Your task to perform on an android device: move an email to a new category in the gmail app Image 0: 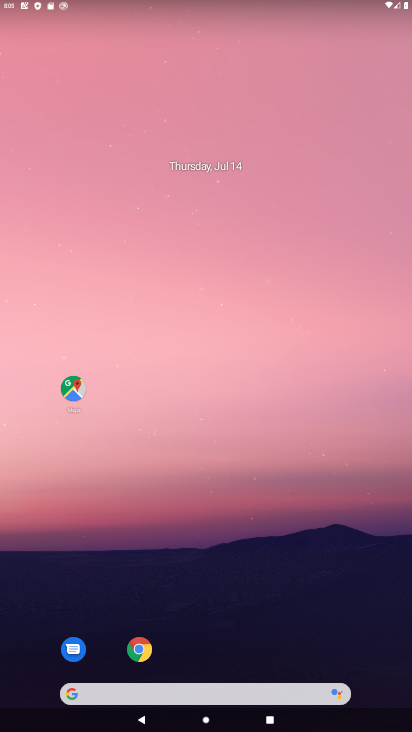
Step 0: drag from (218, 642) to (282, 277)
Your task to perform on an android device: move an email to a new category in the gmail app Image 1: 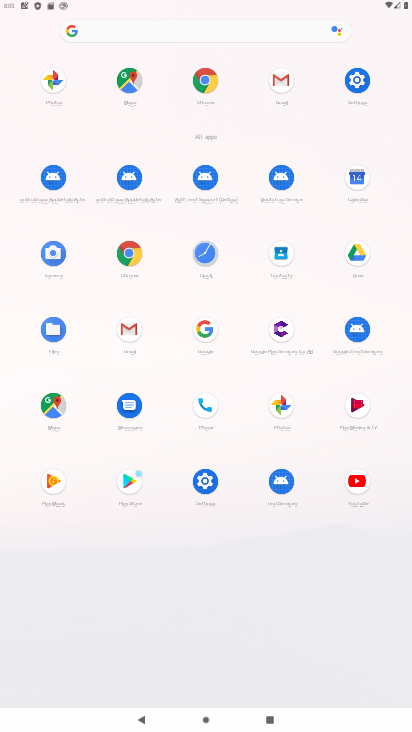
Step 1: click (129, 332)
Your task to perform on an android device: move an email to a new category in the gmail app Image 2: 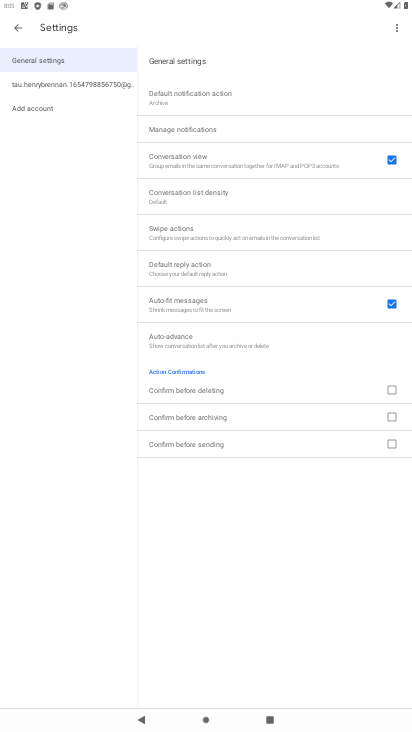
Step 2: click (22, 25)
Your task to perform on an android device: move an email to a new category in the gmail app Image 3: 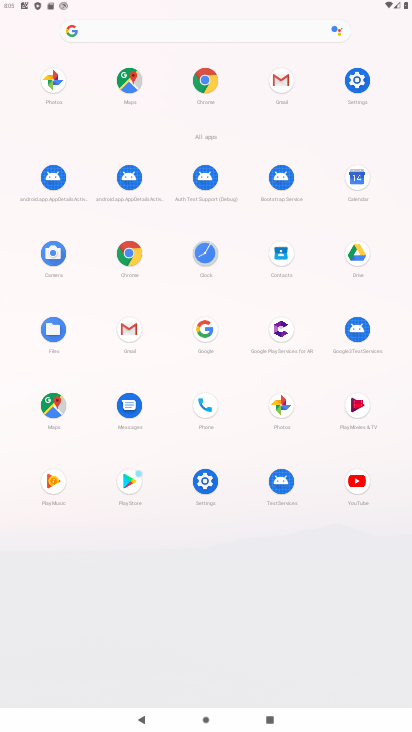
Step 3: click (269, 90)
Your task to perform on an android device: move an email to a new category in the gmail app Image 4: 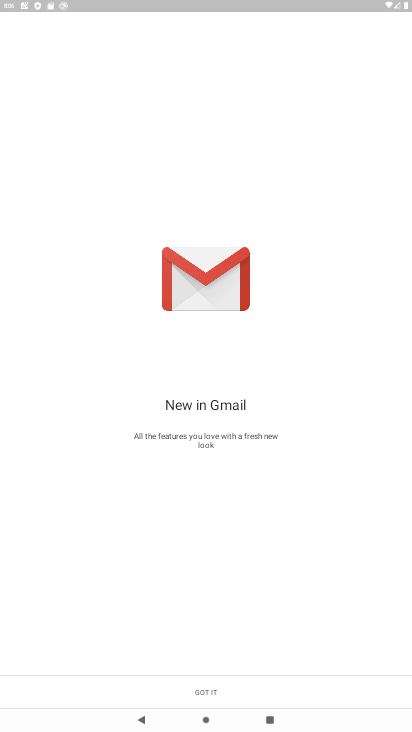
Step 4: click (213, 698)
Your task to perform on an android device: move an email to a new category in the gmail app Image 5: 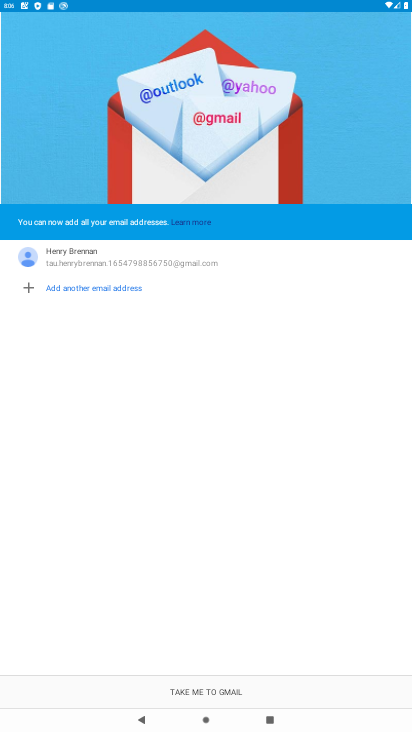
Step 5: click (205, 692)
Your task to perform on an android device: move an email to a new category in the gmail app Image 6: 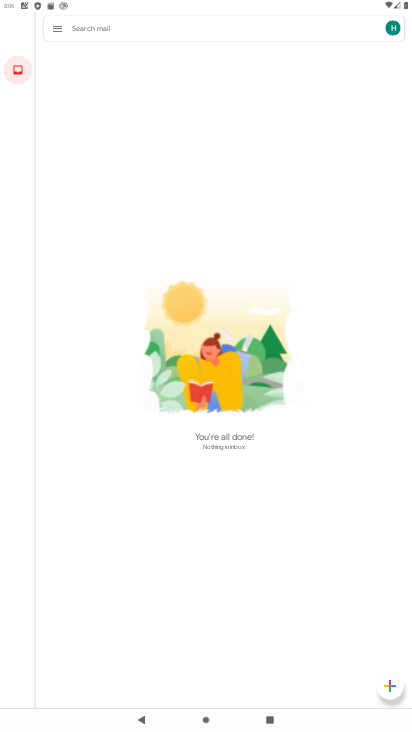
Step 6: task complete